Your task to perform on an android device: When is my next meeting? Image 0: 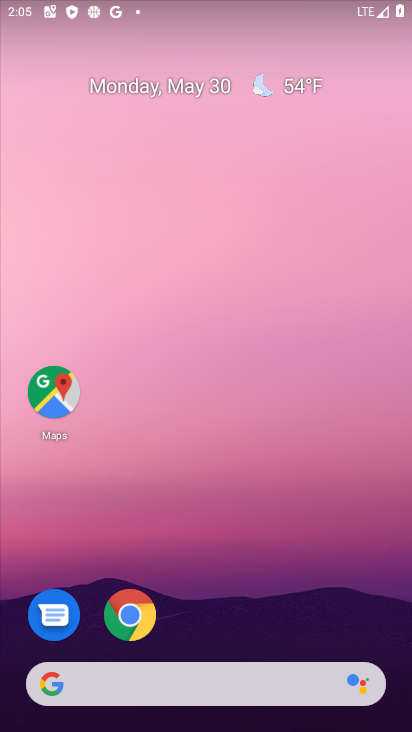
Step 0: drag from (303, 582) to (276, 113)
Your task to perform on an android device: When is my next meeting? Image 1: 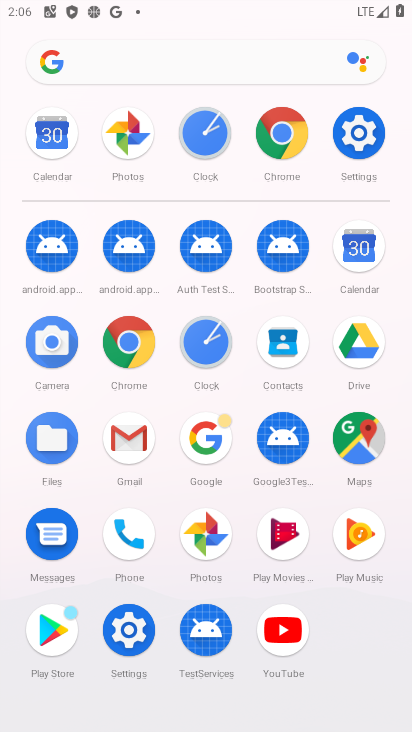
Step 1: click (345, 243)
Your task to perform on an android device: When is my next meeting? Image 2: 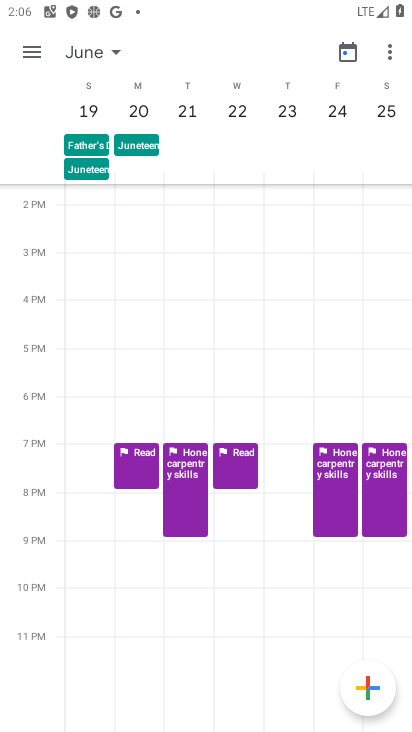
Step 2: click (38, 44)
Your task to perform on an android device: When is my next meeting? Image 3: 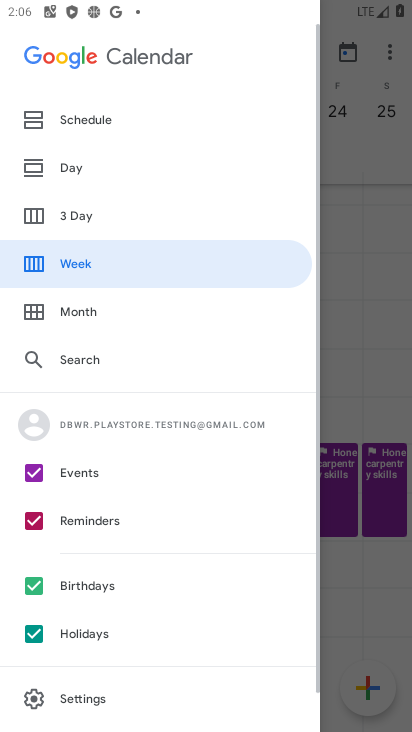
Step 3: click (121, 121)
Your task to perform on an android device: When is my next meeting? Image 4: 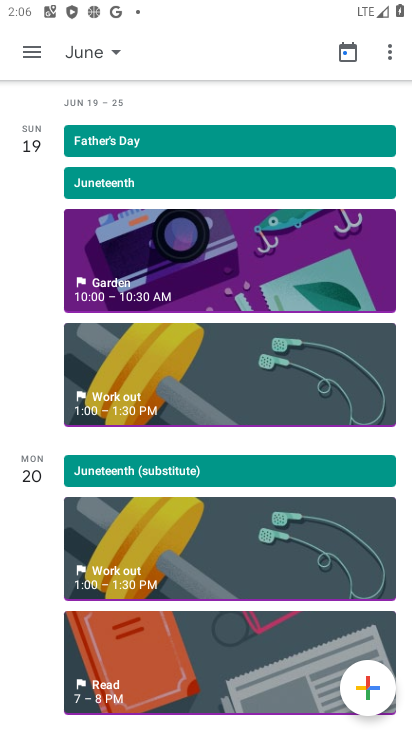
Step 4: click (103, 63)
Your task to perform on an android device: When is my next meeting? Image 5: 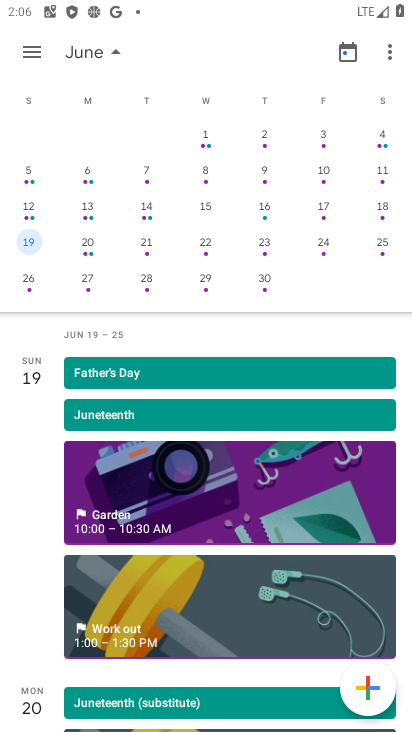
Step 5: click (386, 139)
Your task to perform on an android device: When is my next meeting? Image 6: 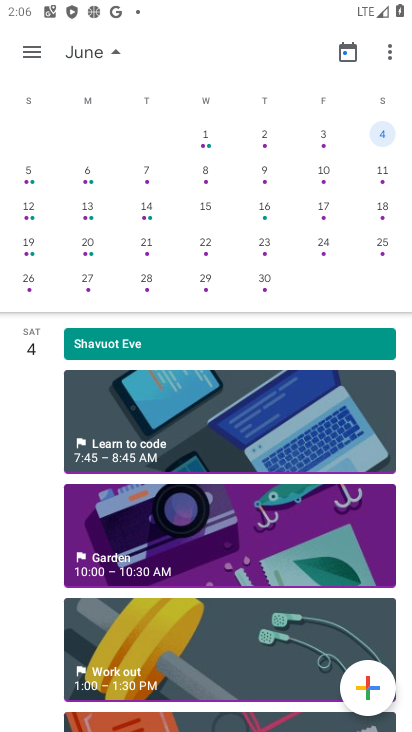
Step 6: drag from (226, 524) to (211, 172)
Your task to perform on an android device: When is my next meeting? Image 7: 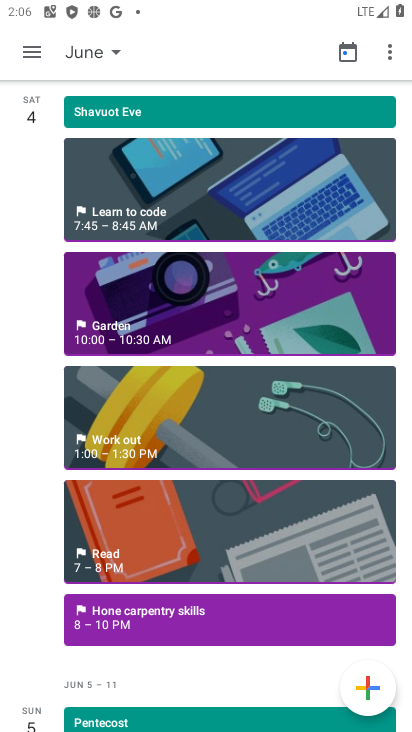
Step 7: drag from (218, 585) to (232, 95)
Your task to perform on an android device: When is my next meeting? Image 8: 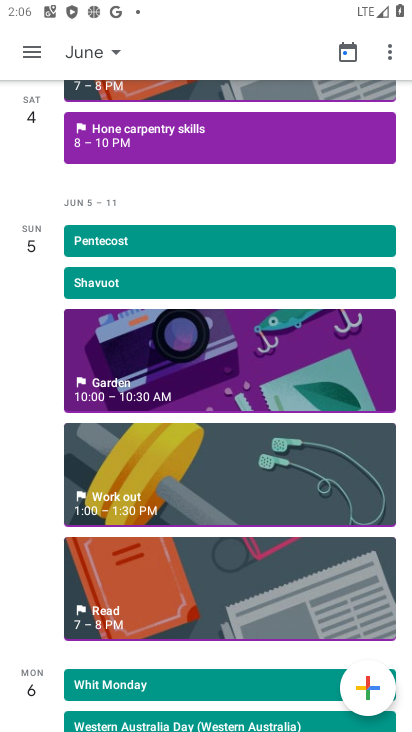
Step 8: drag from (198, 636) to (154, 326)
Your task to perform on an android device: When is my next meeting? Image 9: 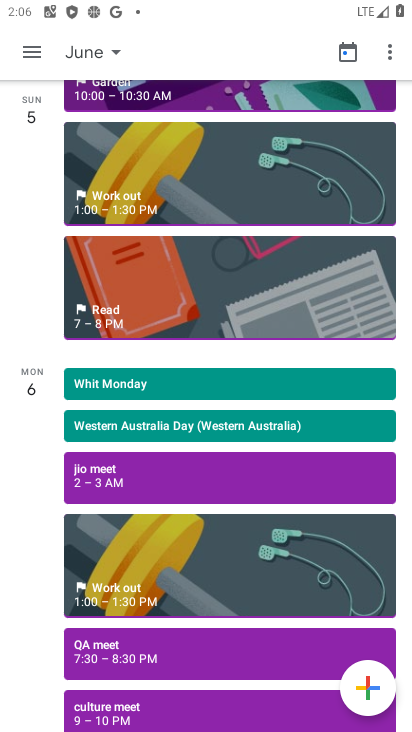
Step 9: click (133, 459)
Your task to perform on an android device: When is my next meeting? Image 10: 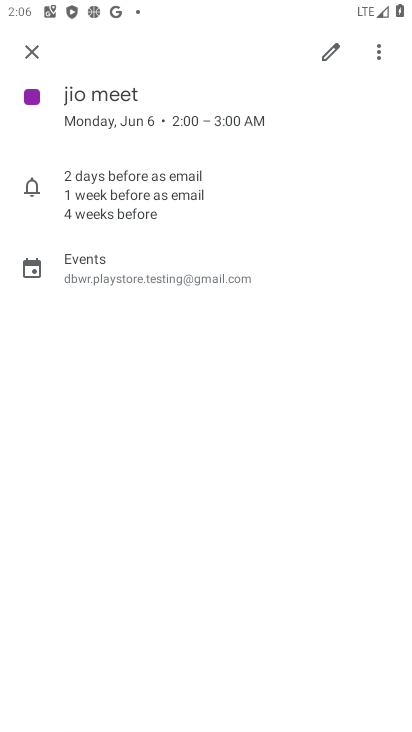
Step 10: task complete